Your task to perform on an android device: Open Chrome and go to settings Image 0: 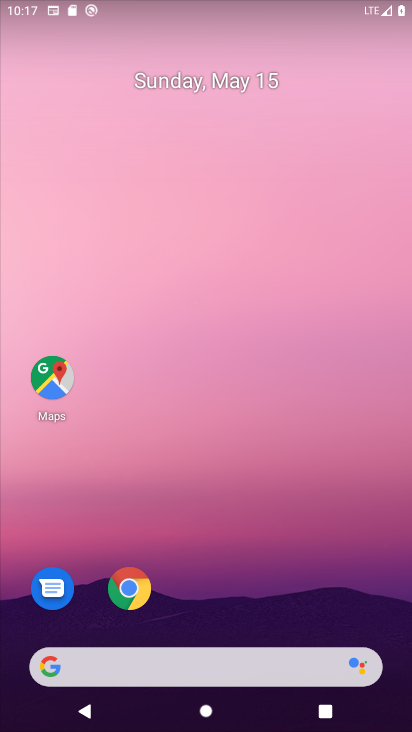
Step 0: click (129, 586)
Your task to perform on an android device: Open Chrome and go to settings Image 1: 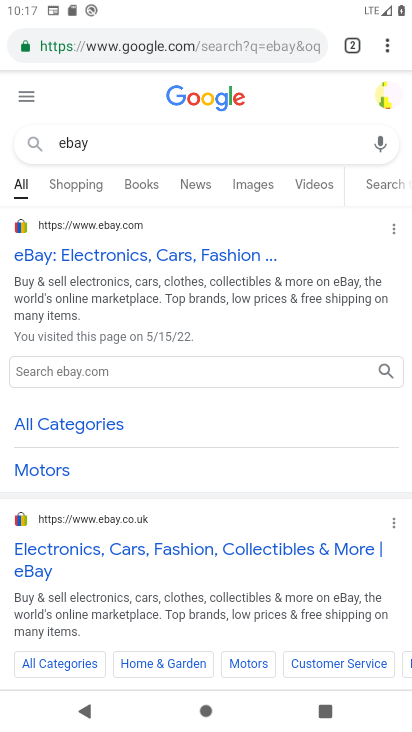
Step 1: click (387, 42)
Your task to perform on an android device: Open Chrome and go to settings Image 2: 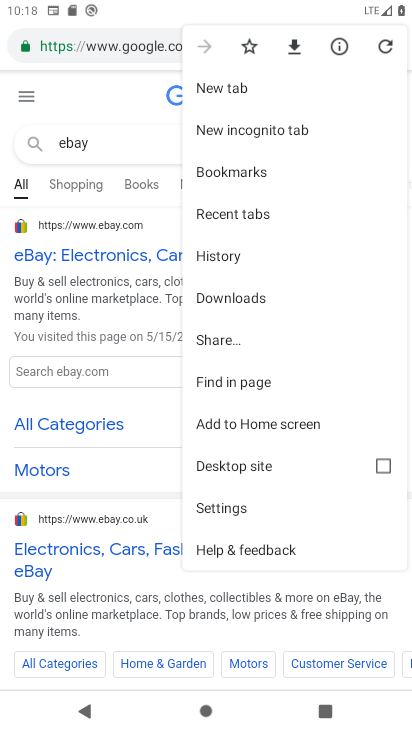
Step 2: click (219, 502)
Your task to perform on an android device: Open Chrome and go to settings Image 3: 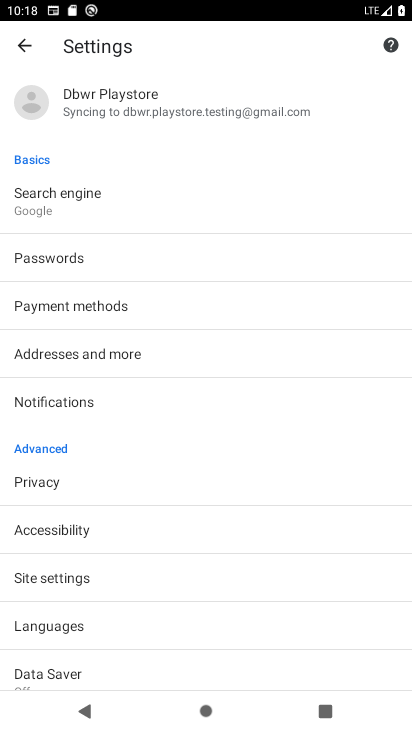
Step 3: task complete